Your task to perform on an android device: read, delete, or share a saved page in the chrome app Image 0: 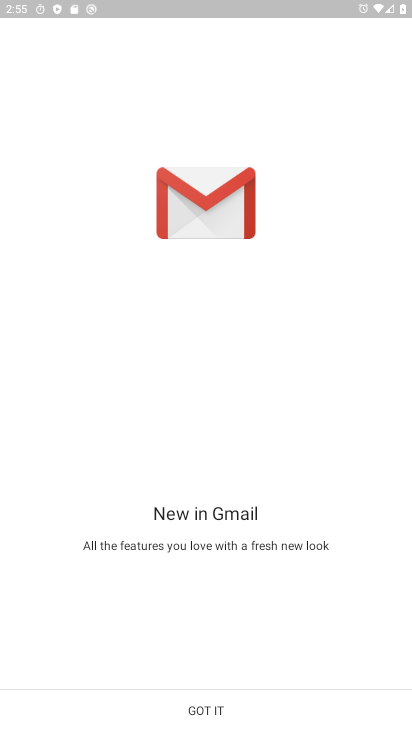
Step 0: press back button
Your task to perform on an android device: read, delete, or share a saved page in the chrome app Image 1: 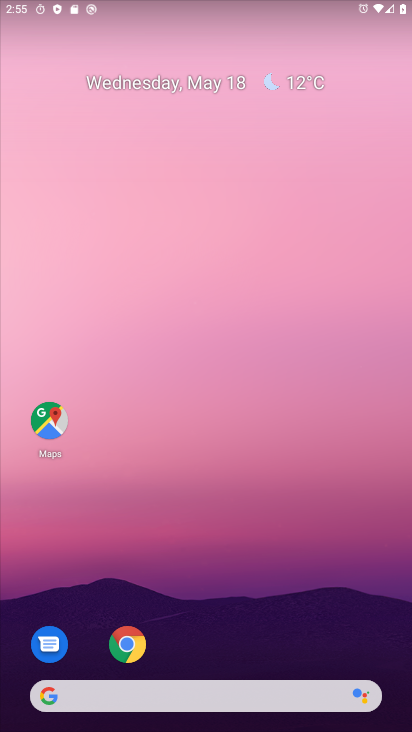
Step 1: click (132, 645)
Your task to perform on an android device: read, delete, or share a saved page in the chrome app Image 2: 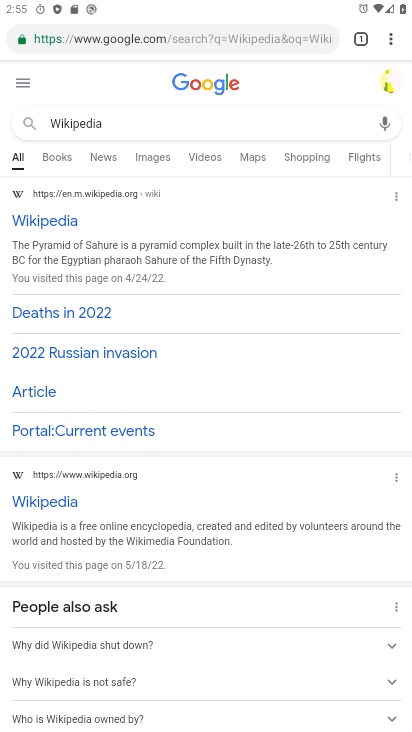
Step 2: click (387, 31)
Your task to perform on an android device: read, delete, or share a saved page in the chrome app Image 3: 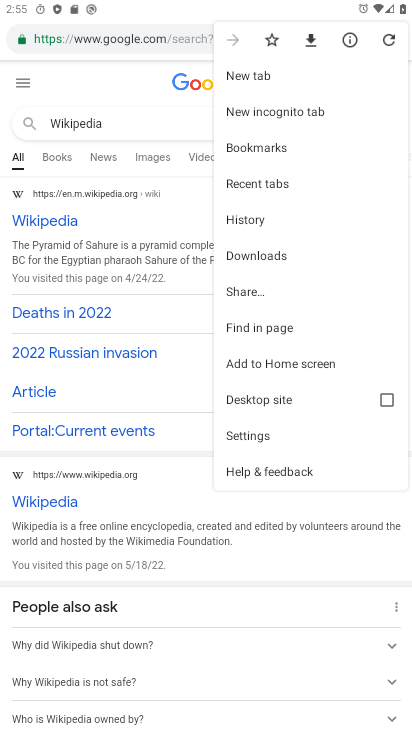
Step 3: drag from (339, 457) to (341, 215)
Your task to perform on an android device: read, delete, or share a saved page in the chrome app Image 4: 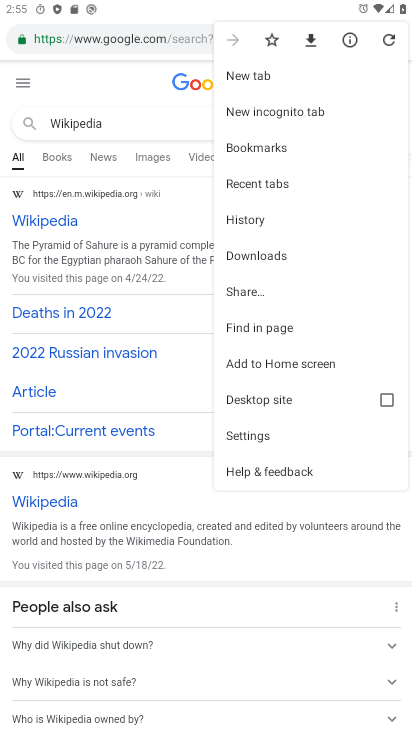
Step 4: click (247, 253)
Your task to perform on an android device: read, delete, or share a saved page in the chrome app Image 5: 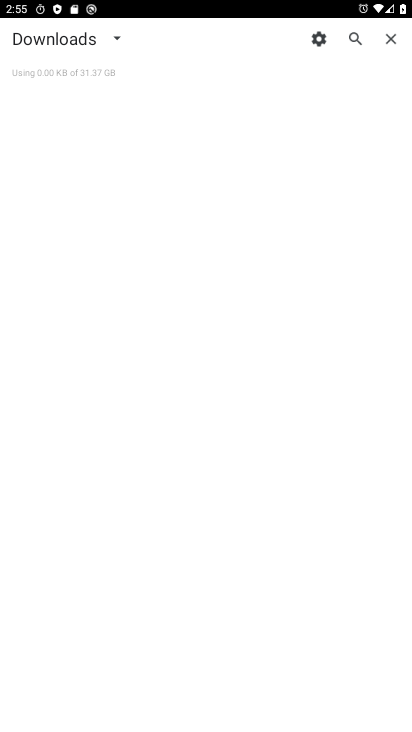
Step 5: task complete